Your task to perform on an android device: Open Reddit.com Image 0: 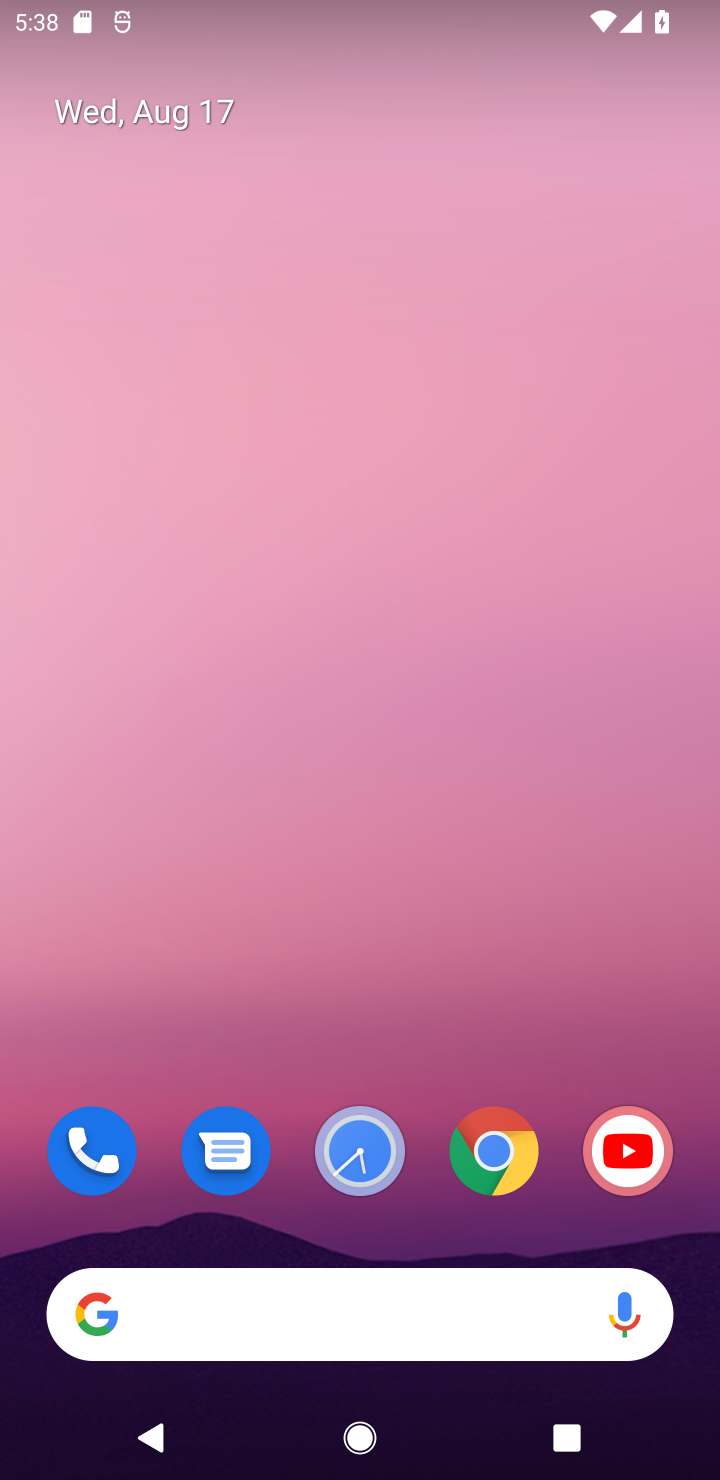
Step 0: drag from (401, 1254) to (494, 220)
Your task to perform on an android device: Open Reddit.com Image 1: 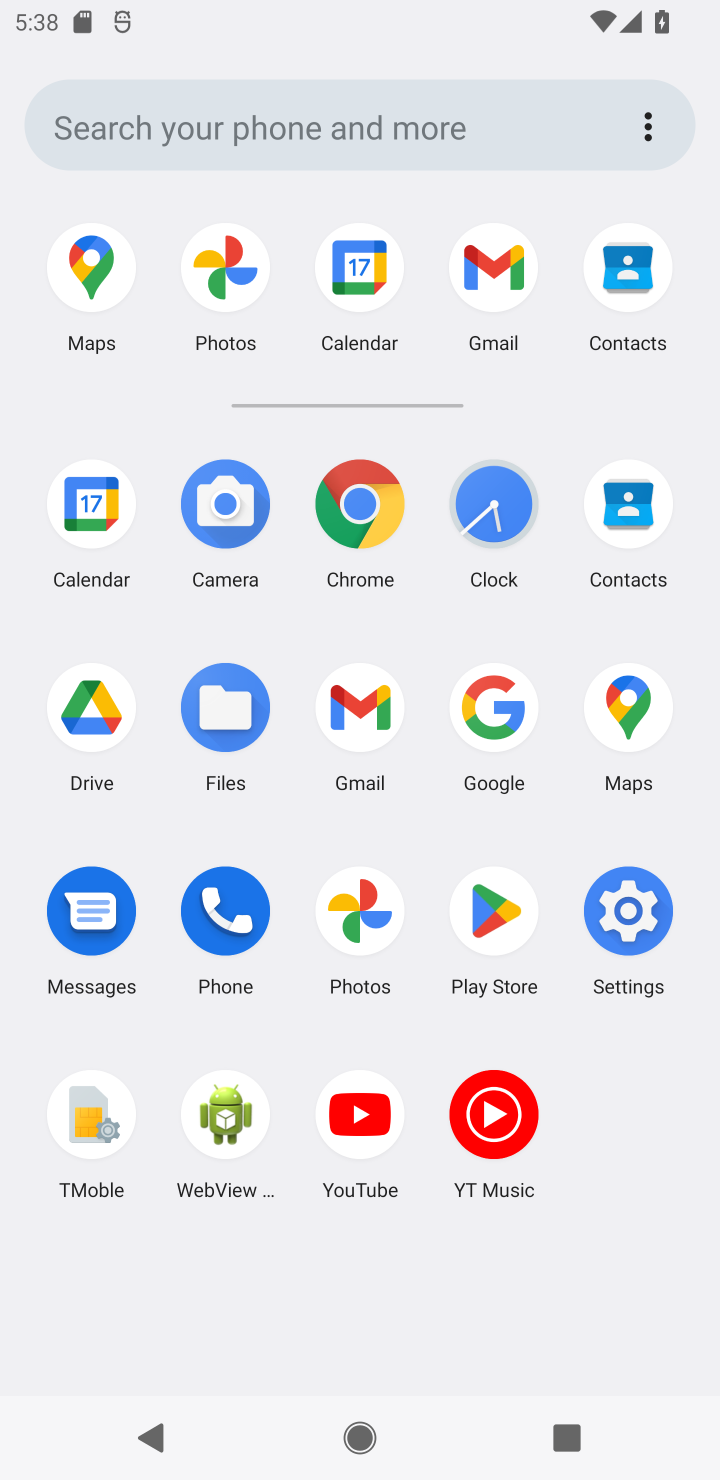
Step 1: click (330, 577)
Your task to perform on an android device: Open Reddit.com Image 2: 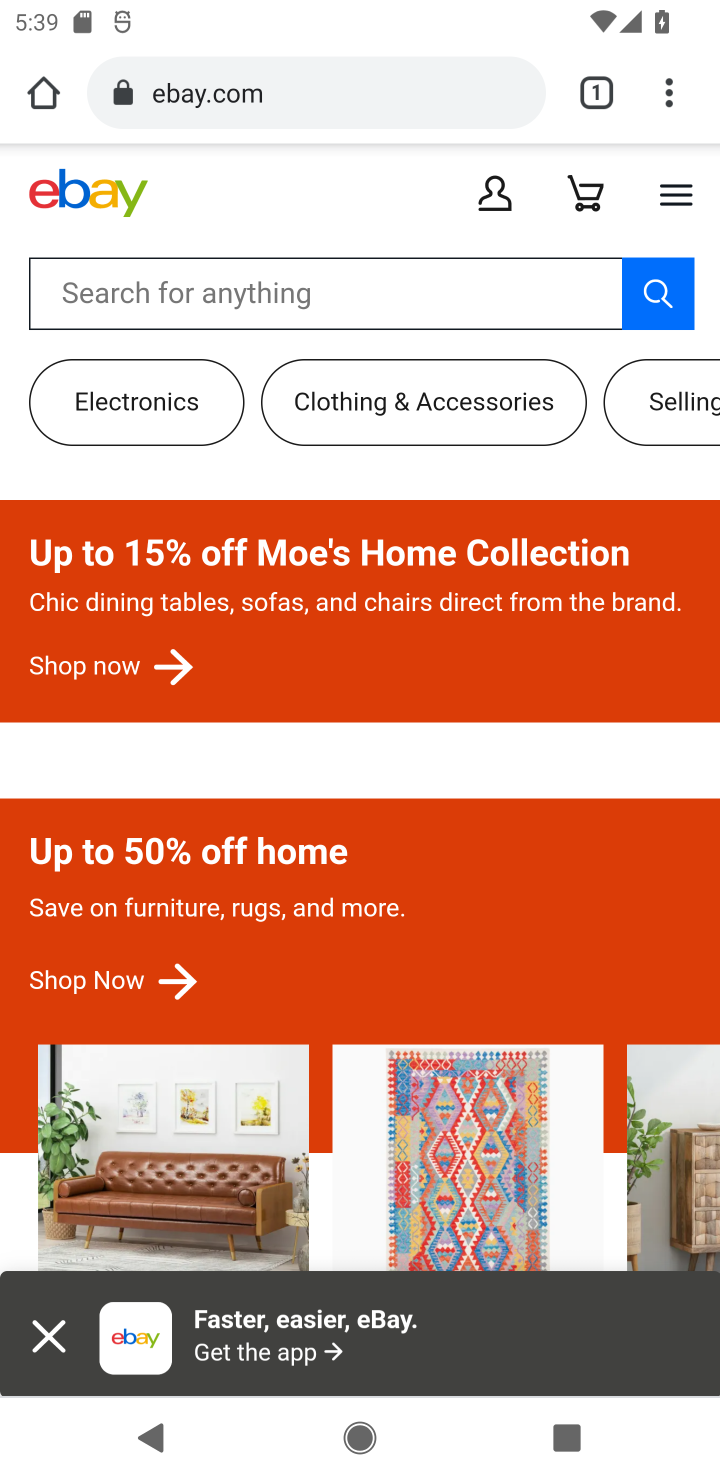
Step 2: task complete